Your task to perform on an android device: Open maps Image 0: 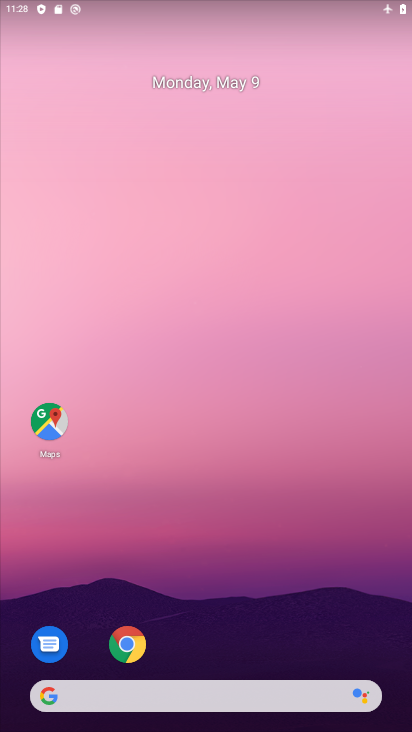
Step 0: click (43, 428)
Your task to perform on an android device: Open maps Image 1: 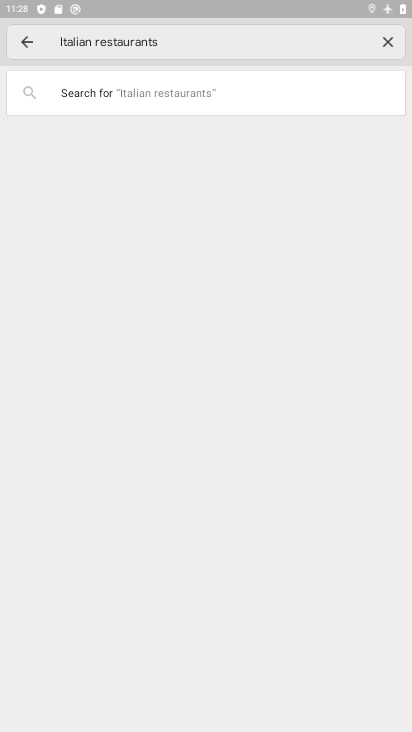
Step 1: task complete